Your task to perform on an android device: Go to accessibility settings Image 0: 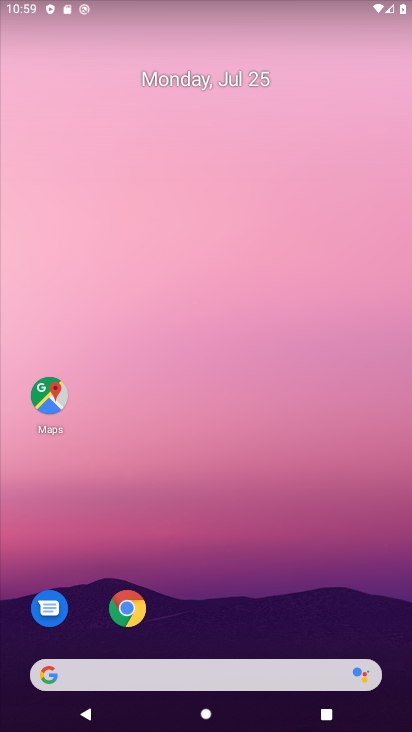
Step 0: drag from (207, 665) to (210, 42)
Your task to perform on an android device: Go to accessibility settings Image 1: 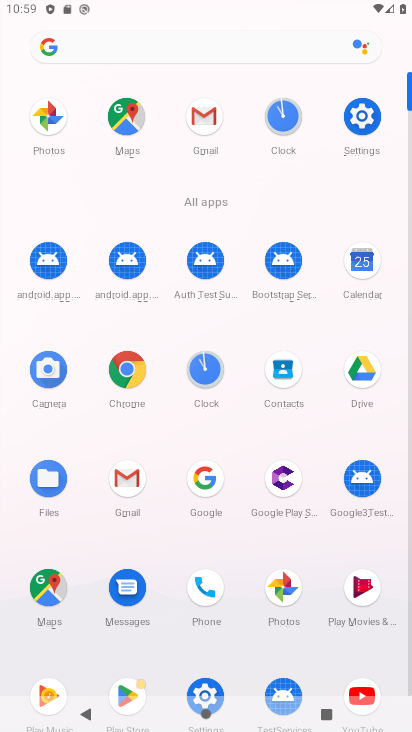
Step 1: click (207, 685)
Your task to perform on an android device: Go to accessibility settings Image 2: 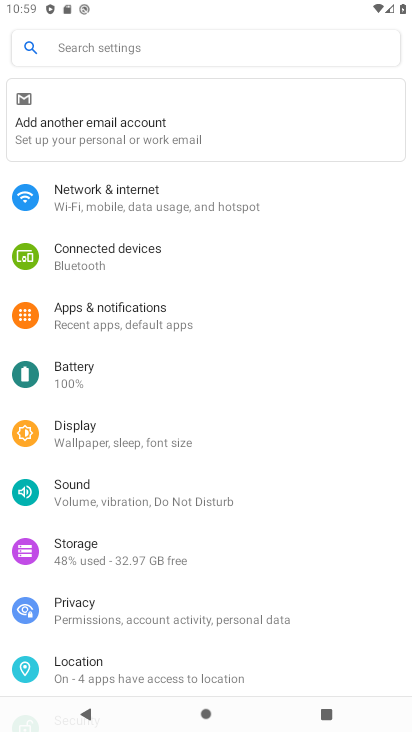
Step 2: drag from (176, 610) to (133, 81)
Your task to perform on an android device: Go to accessibility settings Image 3: 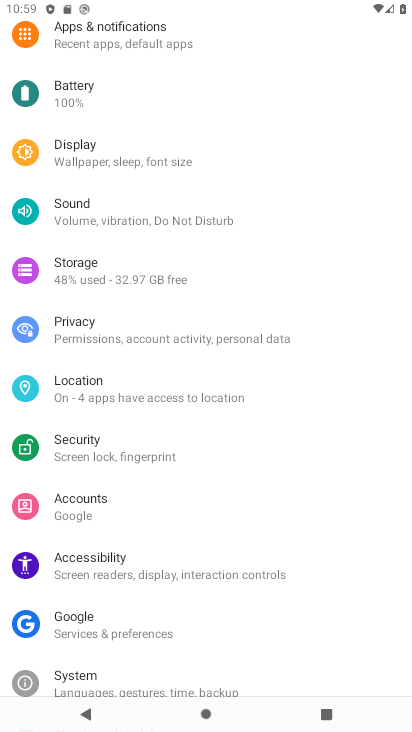
Step 3: click (145, 559)
Your task to perform on an android device: Go to accessibility settings Image 4: 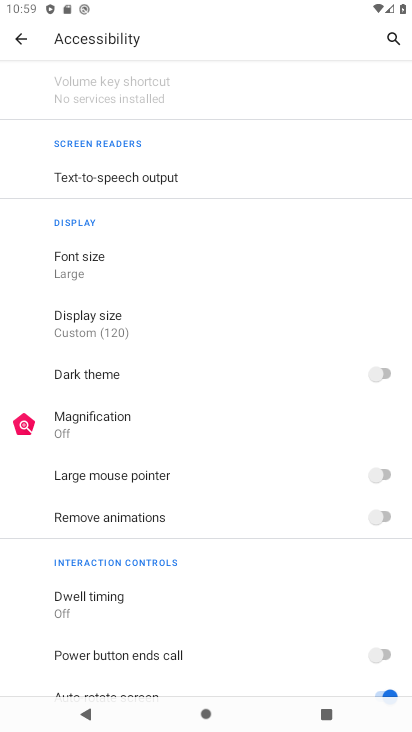
Step 4: task complete